Your task to perform on an android device: Go to ESPN.com Image 0: 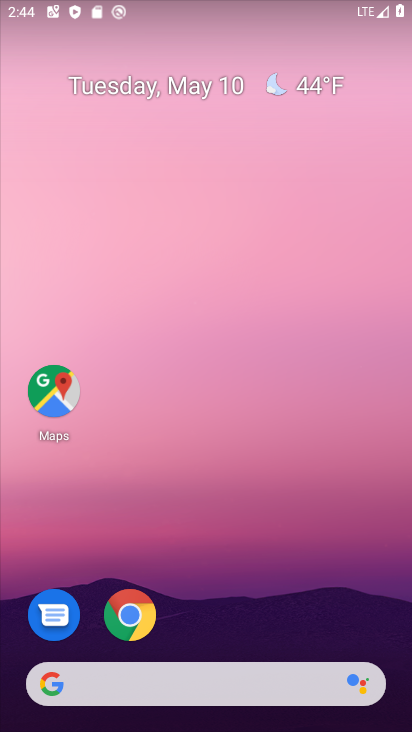
Step 0: press home button
Your task to perform on an android device: Go to ESPN.com Image 1: 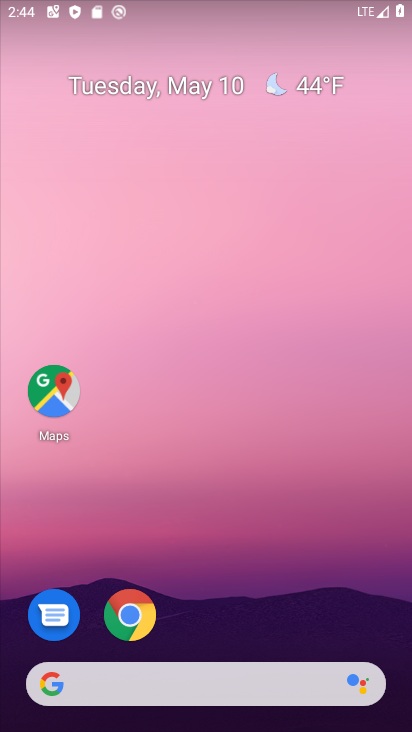
Step 1: click (125, 614)
Your task to perform on an android device: Go to ESPN.com Image 2: 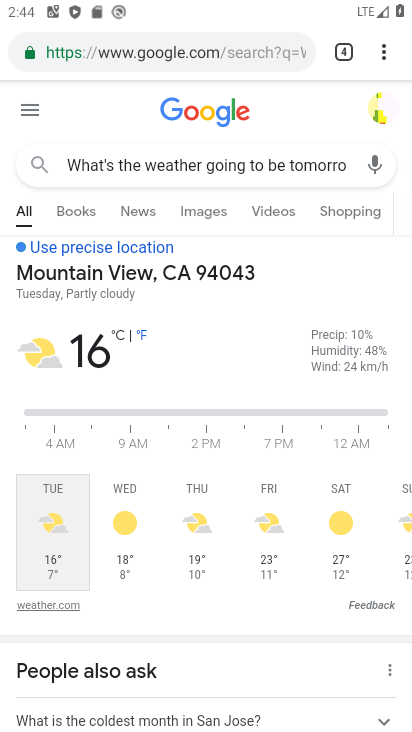
Step 2: click (264, 51)
Your task to perform on an android device: Go to ESPN.com Image 3: 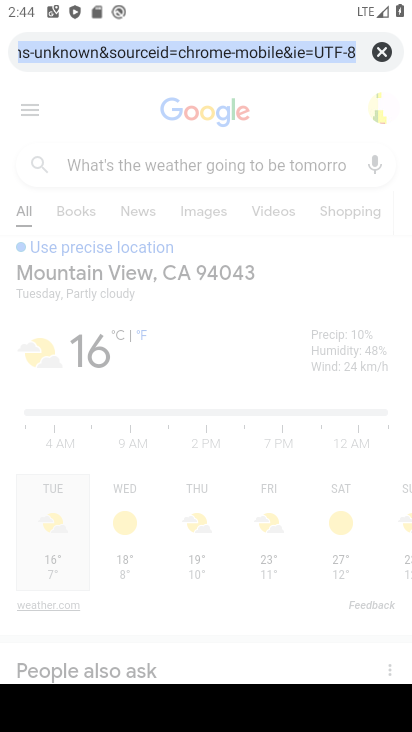
Step 3: click (372, 56)
Your task to perform on an android device: Go to ESPN.com Image 4: 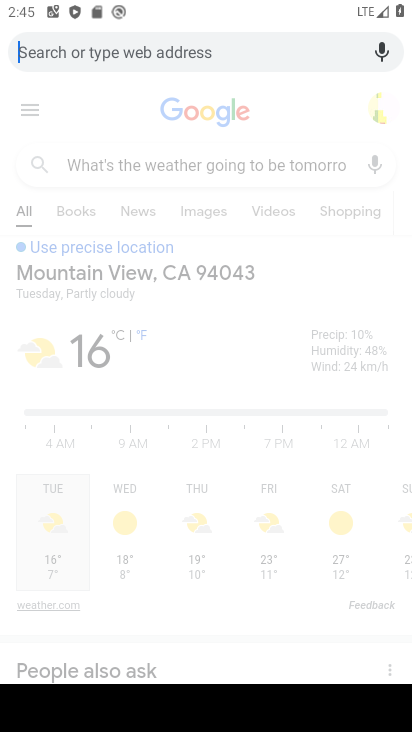
Step 4: type " ESPN.com"
Your task to perform on an android device: Go to ESPN.com Image 5: 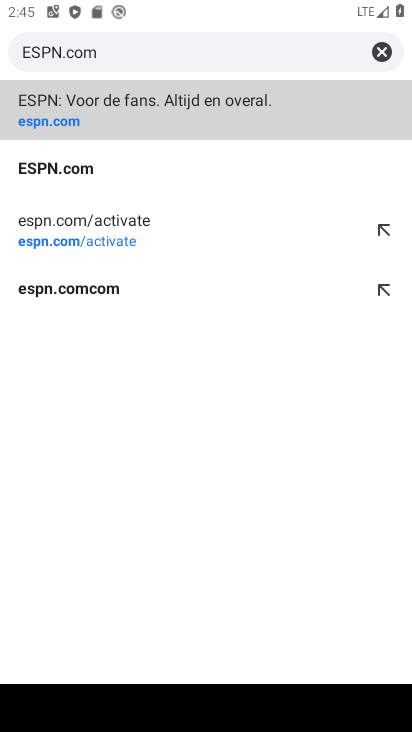
Step 5: click (273, 112)
Your task to perform on an android device: Go to ESPN.com Image 6: 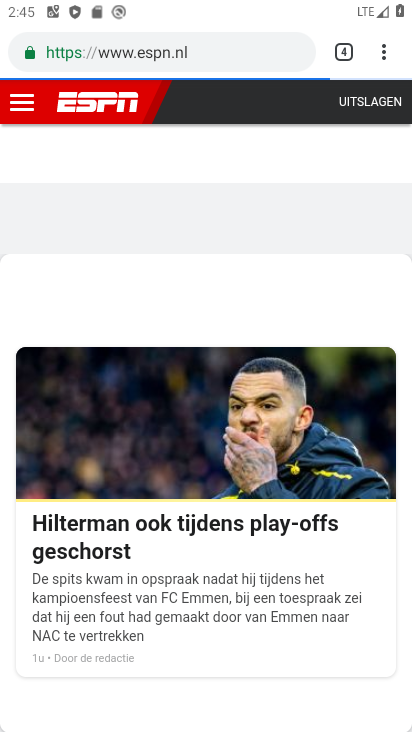
Step 6: task complete